Your task to perform on an android device: Go to settings Image 0: 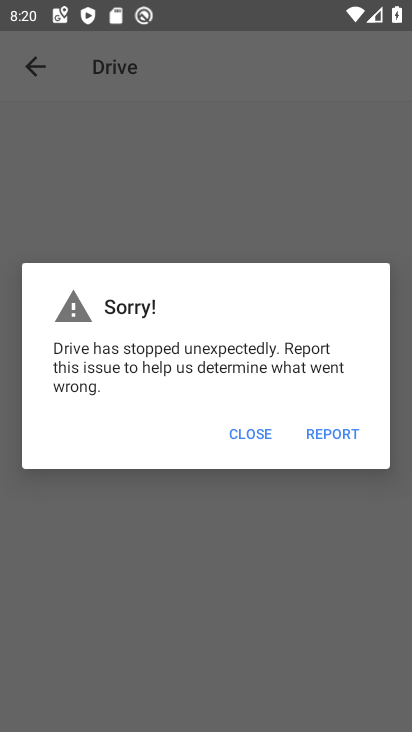
Step 0: press home button
Your task to perform on an android device: Go to settings Image 1: 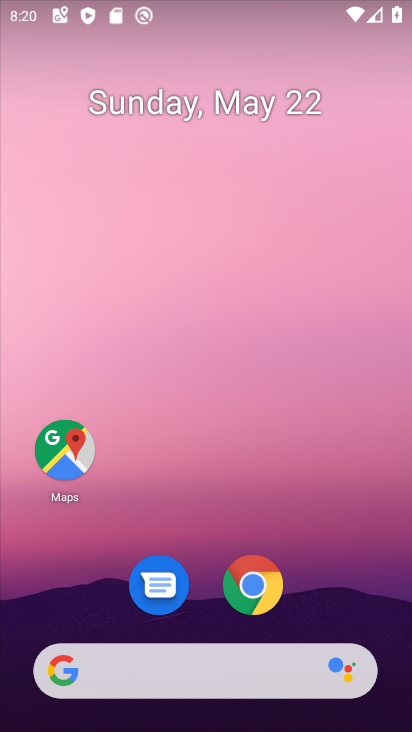
Step 1: drag from (273, 426) to (264, 64)
Your task to perform on an android device: Go to settings Image 2: 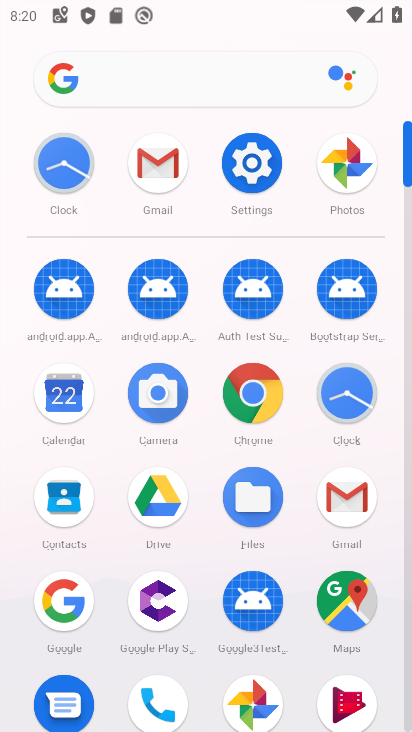
Step 2: click (253, 163)
Your task to perform on an android device: Go to settings Image 3: 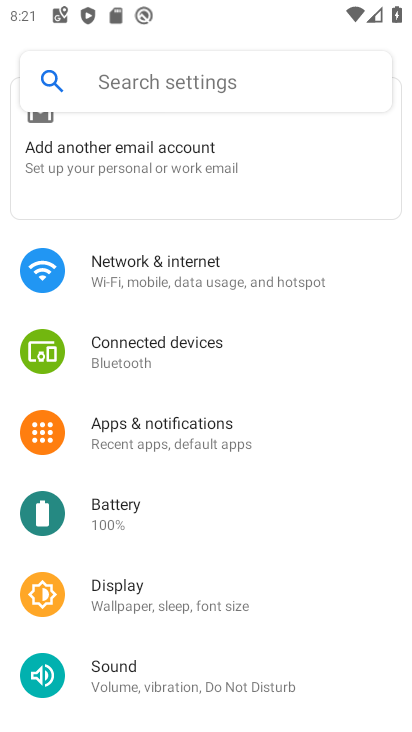
Step 3: task complete